Your task to perform on an android device: check android version Image 0: 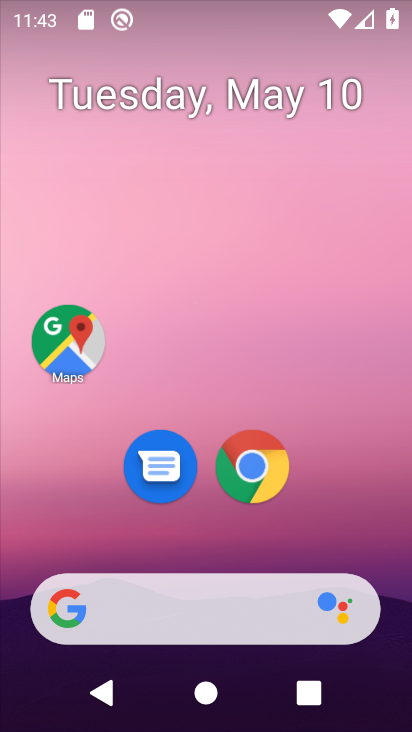
Step 0: drag from (164, 561) to (243, 93)
Your task to perform on an android device: check android version Image 1: 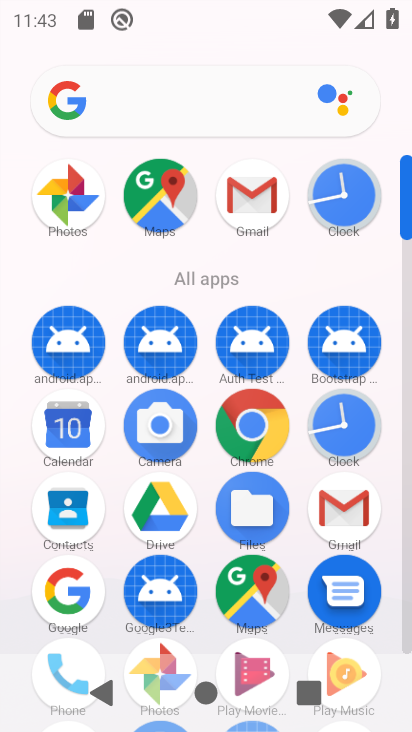
Step 1: click (241, 93)
Your task to perform on an android device: check android version Image 2: 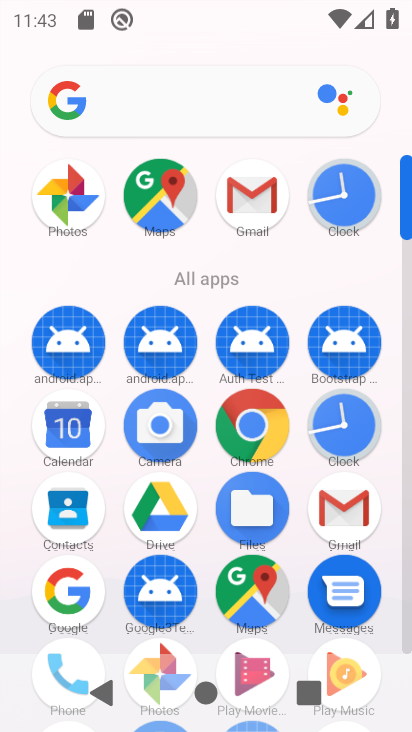
Step 2: drag from (229, 698) to (277, 244)
Your task to perform on an android device: check android version Image 3: 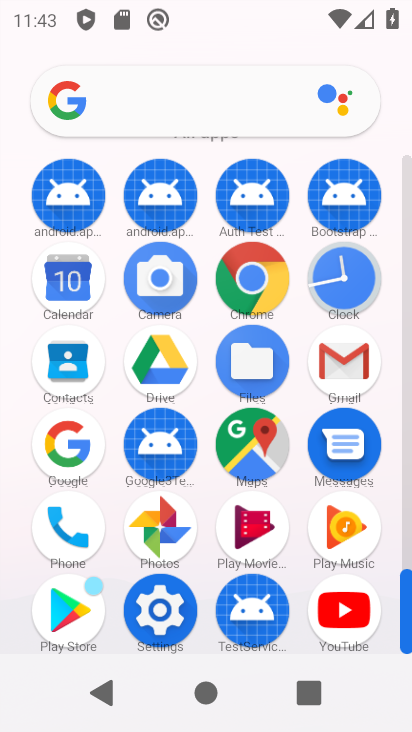
Step 3: click (158, 617)
Your task to perform on an android device: check android version Image 4: 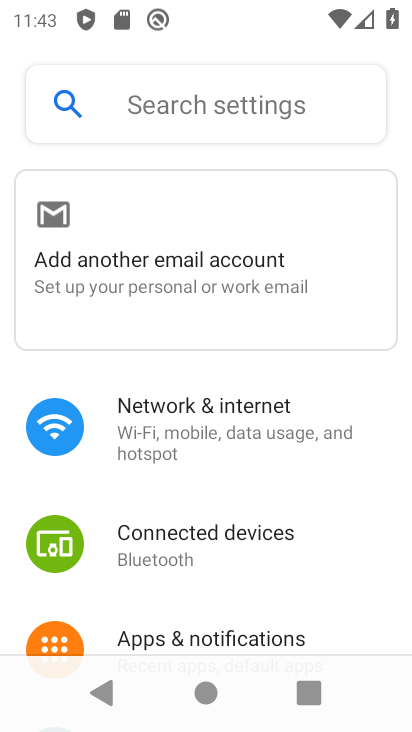
Step 4: drag from (243, 599) to (365, 132)
Your task to perform on an android device: check android version Image 5: 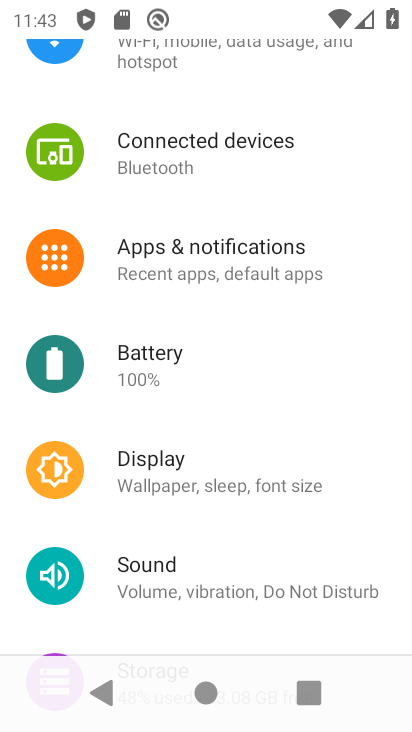
Step 5: drag from (196, 612) to (322, 156)
Your task to perform on an android device: check android version Image 6: 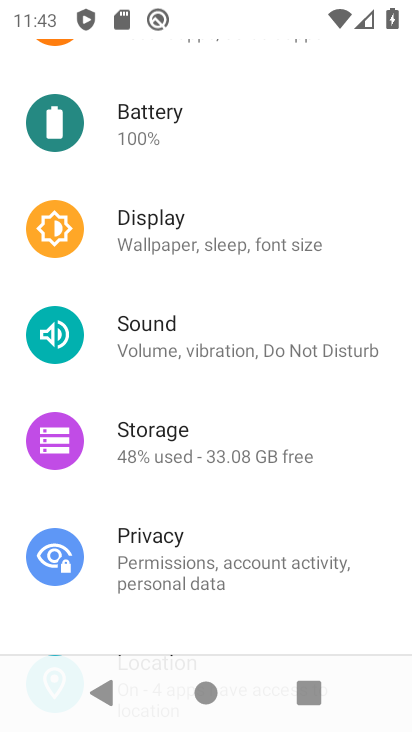
Step 6: drag from (178, 598) to (313, 129)
Your task to perform on an android device: check android version Image 7: 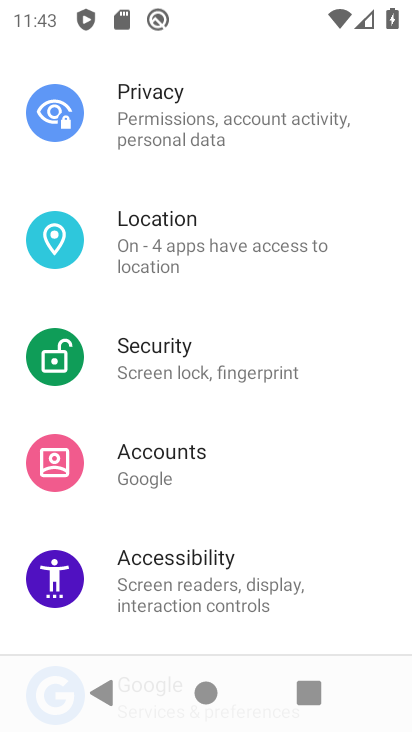
Step 7: drag from (166, 592) to (293, 211)
Your task to perform on an android device: check android version Image 8: 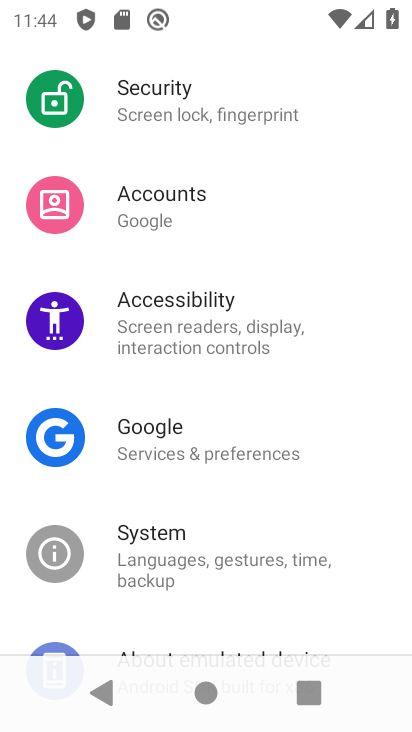
Step 8: drag from (212, 628) to (326, 251)
Your task to perform on an android device: check android version Image 9: 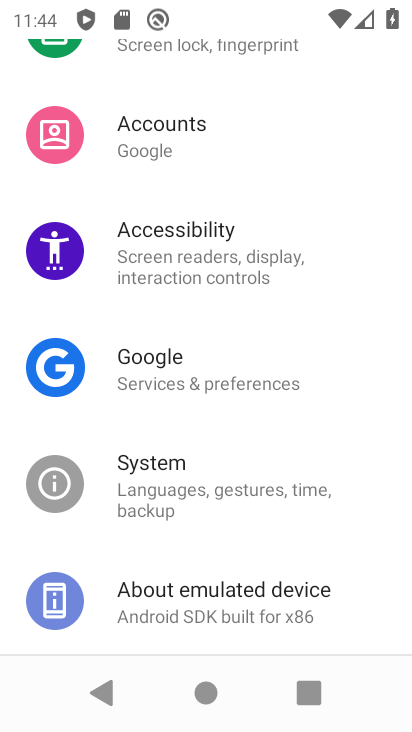
Step 9: click (199, 617)
Your task to perform on an android device: check android version Image 10: 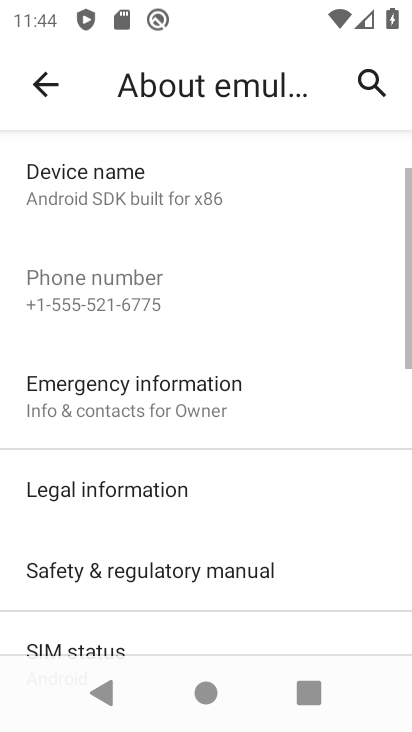
Step 10: drag from (156, 541) to (259, 193)
Your task to perform on an android device: check android version Image 11: 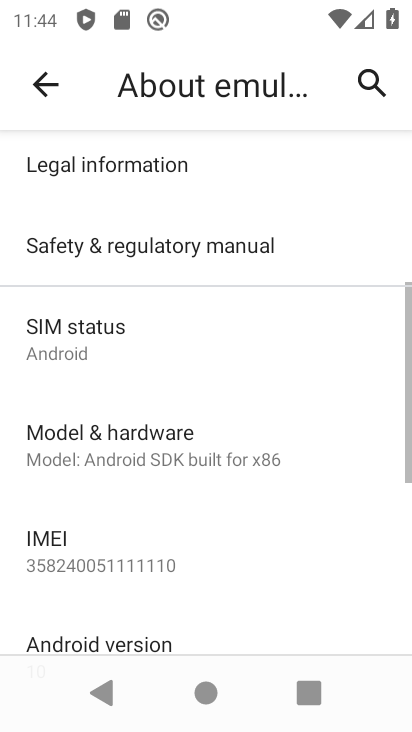
Step 11: drag from (159, 624) to (224, 376)
Your task to perform on an android device: check android version Image 12: 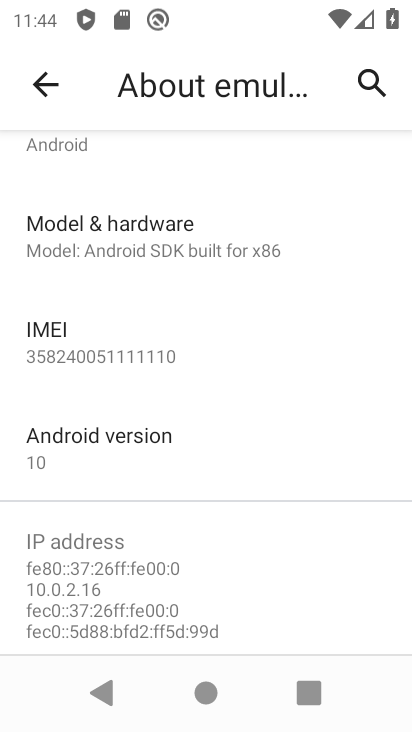
Step 12: click (159, 456)
Your task to perform on an android device: check android version Image 13: 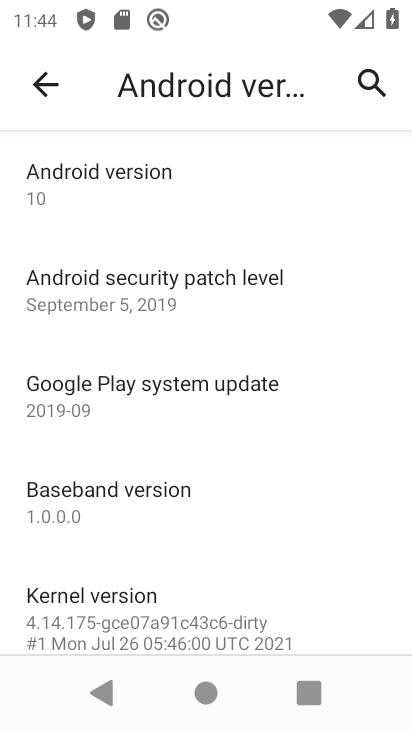
Step 13: task complete